Your task to perform on an android device: Go to CNN.com Image 0: 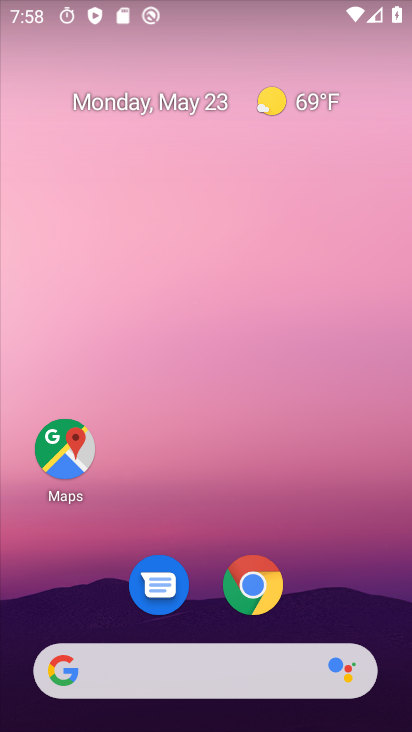
Step 0: click (172, 673)
Your task to perform on an android device: Go to CNN.com Image 1: 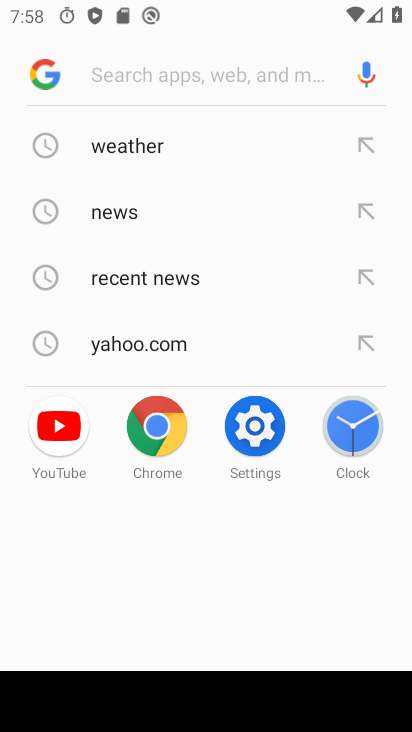
Step 1: type "cnn.com"
Your task to perform on an android device: Go to CNN.com Image 2: 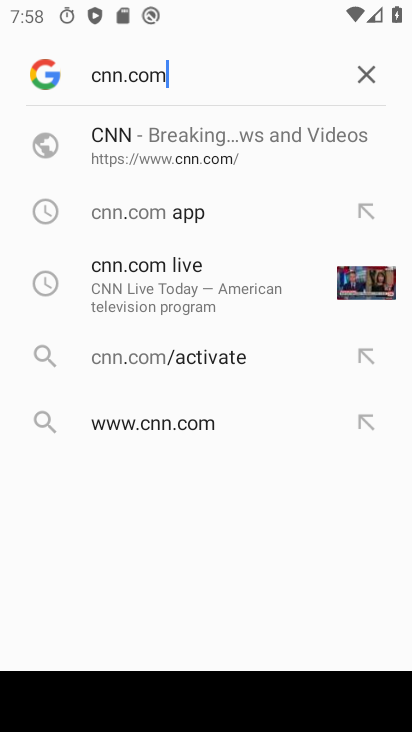
Step 2: click (123, 143)
Your task to perform on an android device: Go to CNN.com Image 3: 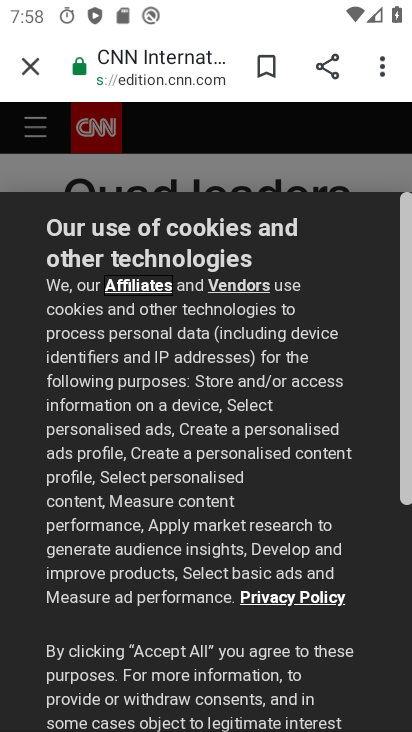
Step 3: task complete